Your task to perform on an android device: Who is the prime minister of Canada? Image 0: 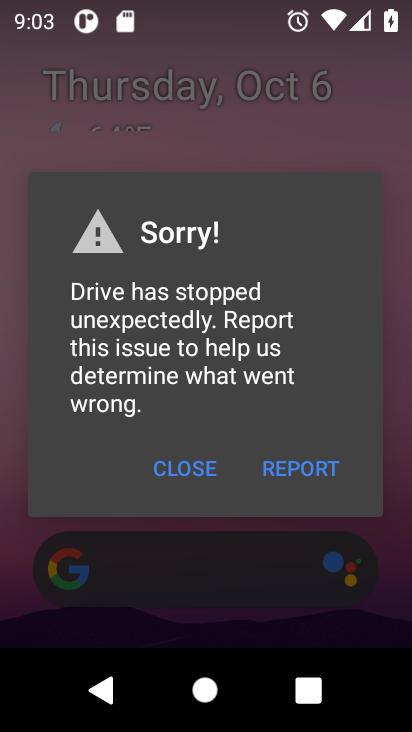
Step 0: click (173, 464)
Your task to perform on an android device: Who is the prime minister of Canada? Image 1: 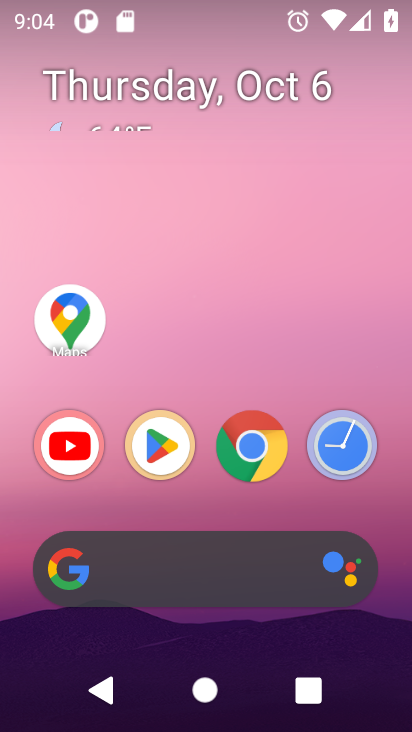
Step 1: click (209, 553)
Your task to perform on an android device: Who is the prime minister of Canada? Image 2: 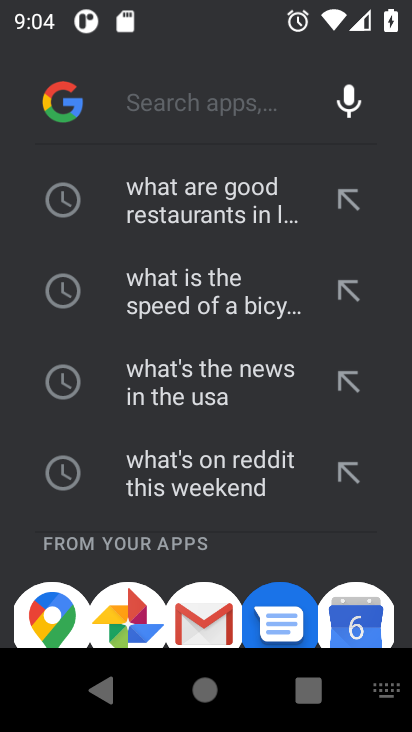
Step 2: type "Who is the prime minister of Canada?"
Your task to perform on an android device: Who is the prime minister of Canada? Image 3: 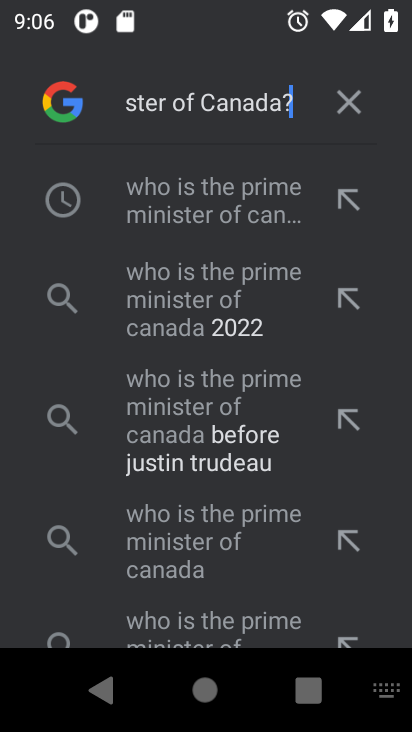
Step 3: click (207, 171)
Your task to perform on an android device: Who is the prime minister of Canada? Image 4: 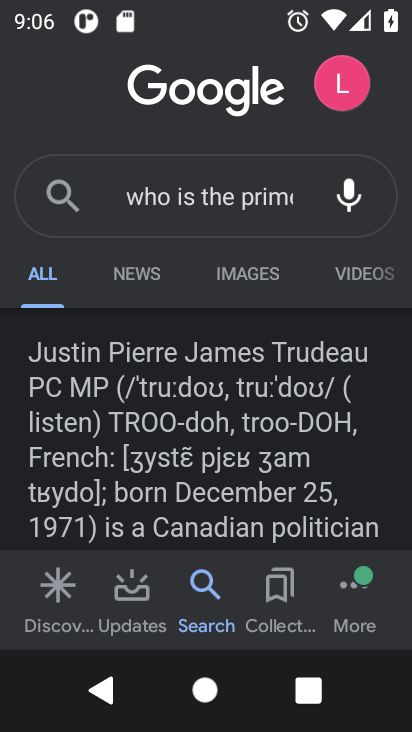
Step 4: task complete